Your task to perform on an android device: clear all cookies in the chrome app Image 0: 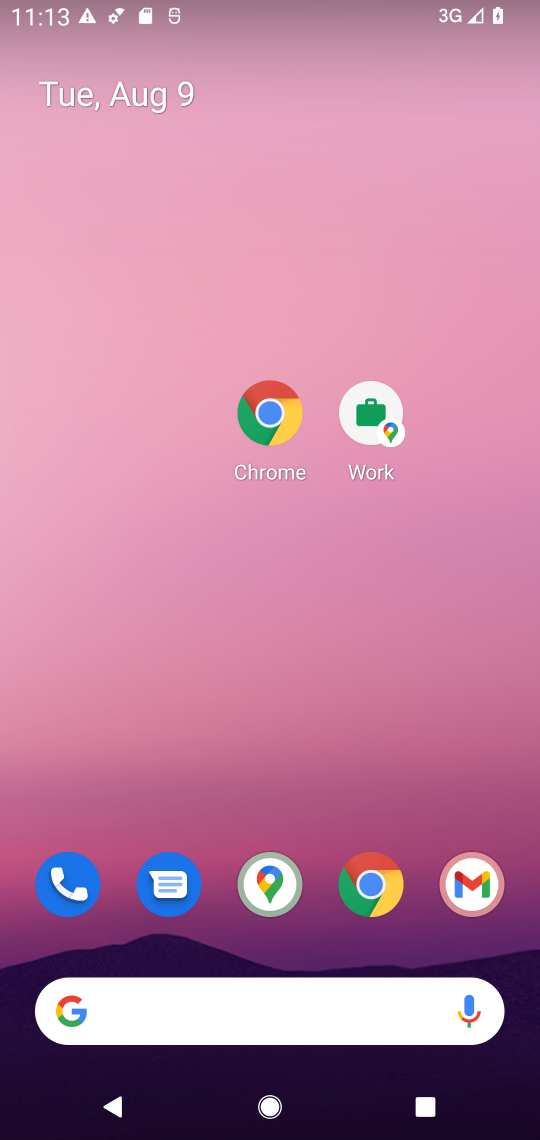
Step 0: drag from (337, 957) to (257, 256)
Your task to perform on an android device: clear all cookies in the chrome app Image 1: 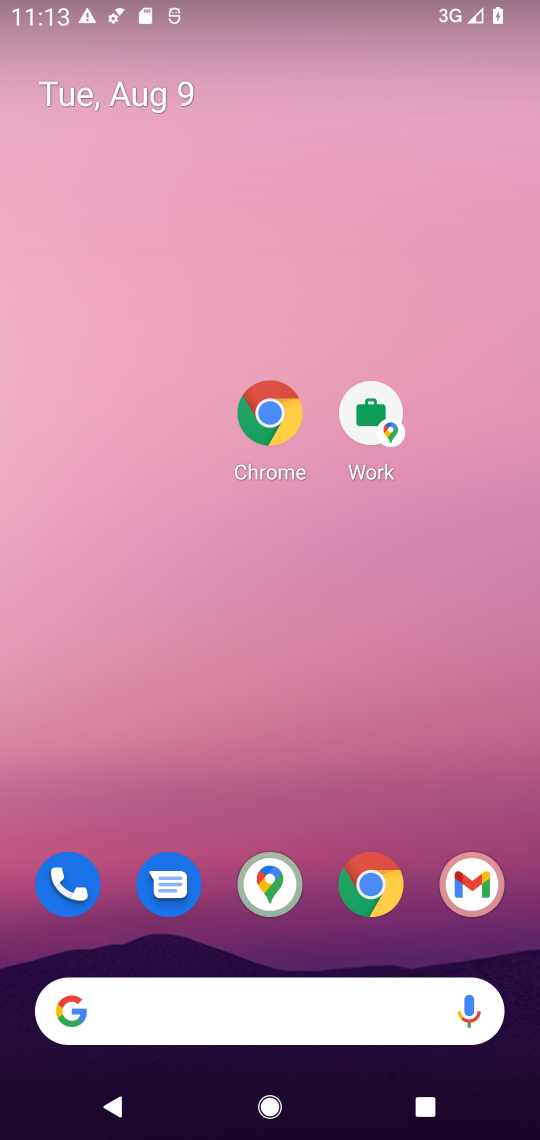
Step 1: drag from (293, 796) to (228, 346)
Your task to perform on an android device: clear all cookies in the chrome app Image 2: 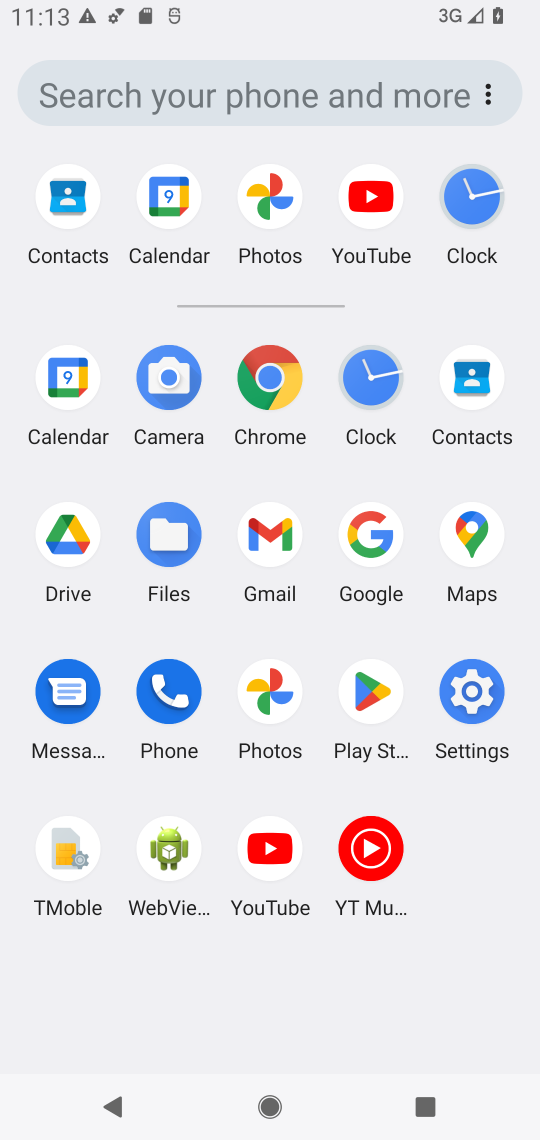
Step 2: drag from (266, 667) to (220, 161)
Your task to perform on an android device: clear all cookies in the chrome app Image 3: 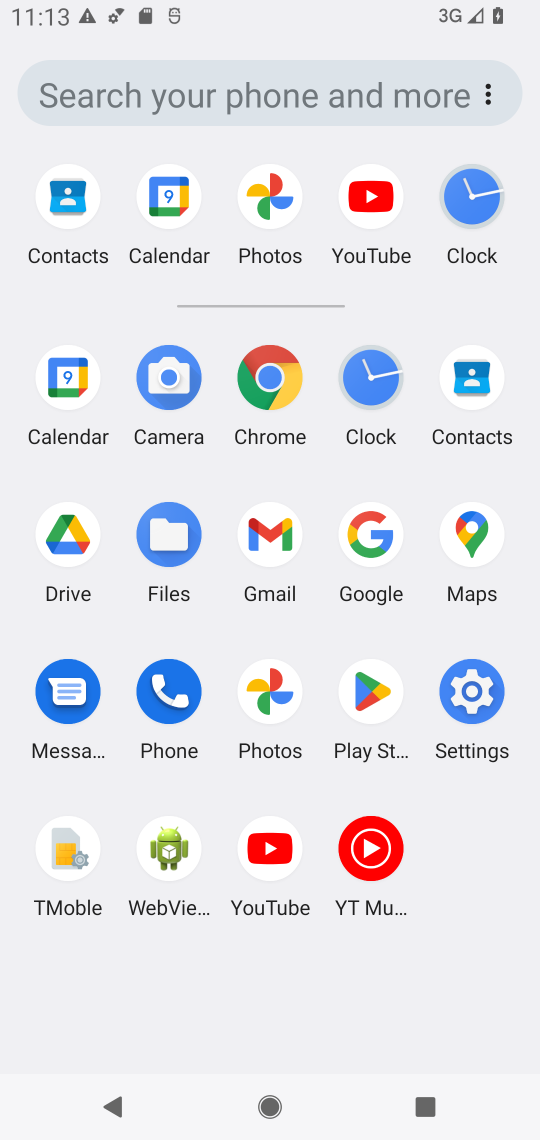
Step 3: click (263, 380)
Your task to perform on an android device: clear all cookies in the chrome app Image 4: 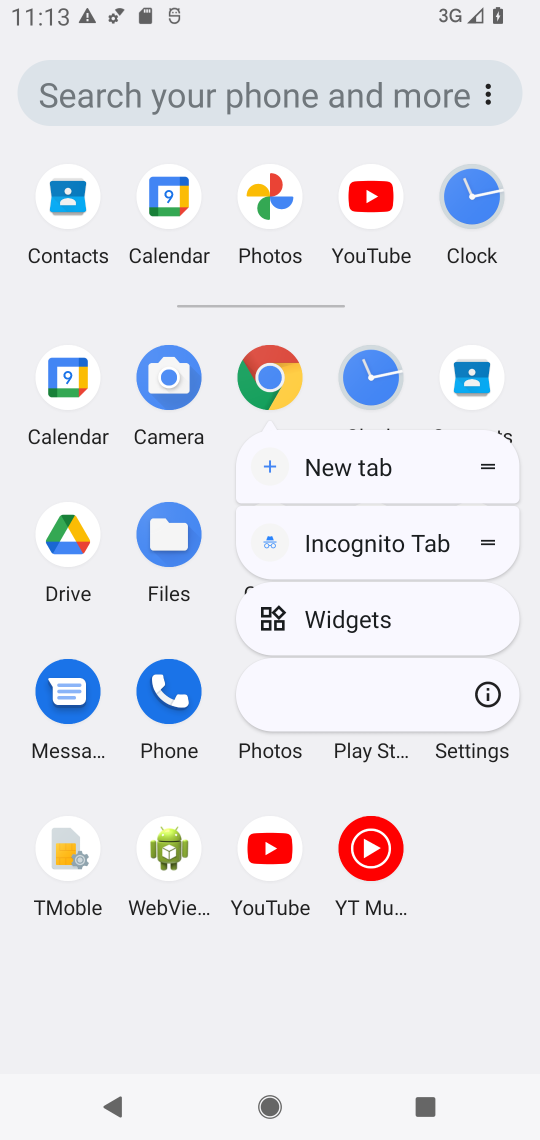
Step 4: click (266, 400)
Your task to perform on an android device: clear all cookies in the chrome app Image 5: 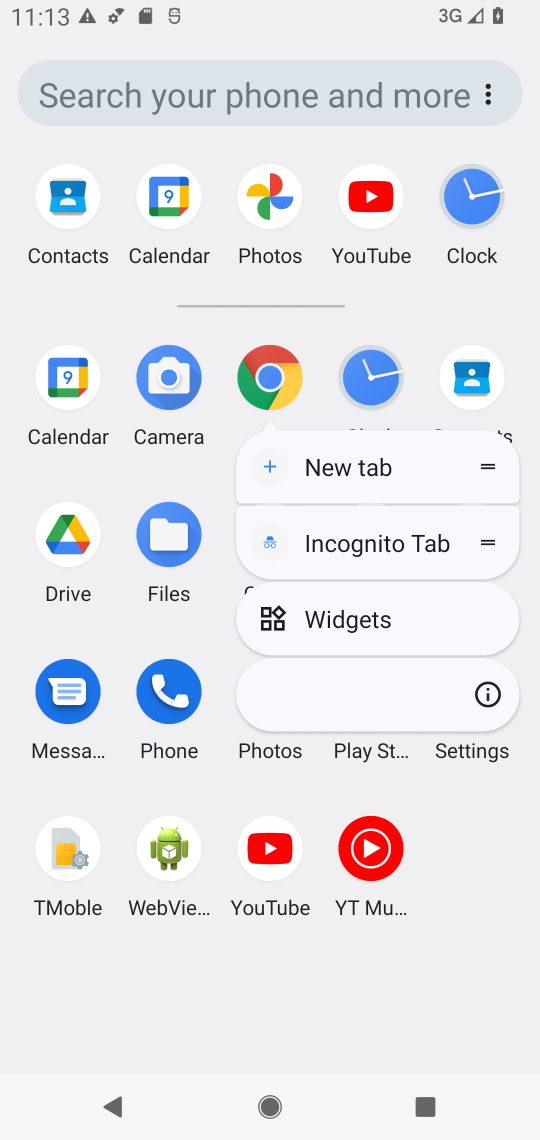
Step 5: click (252, 385)
Your task to perform on an android device: clear all cookies in the chrome app Image 6: 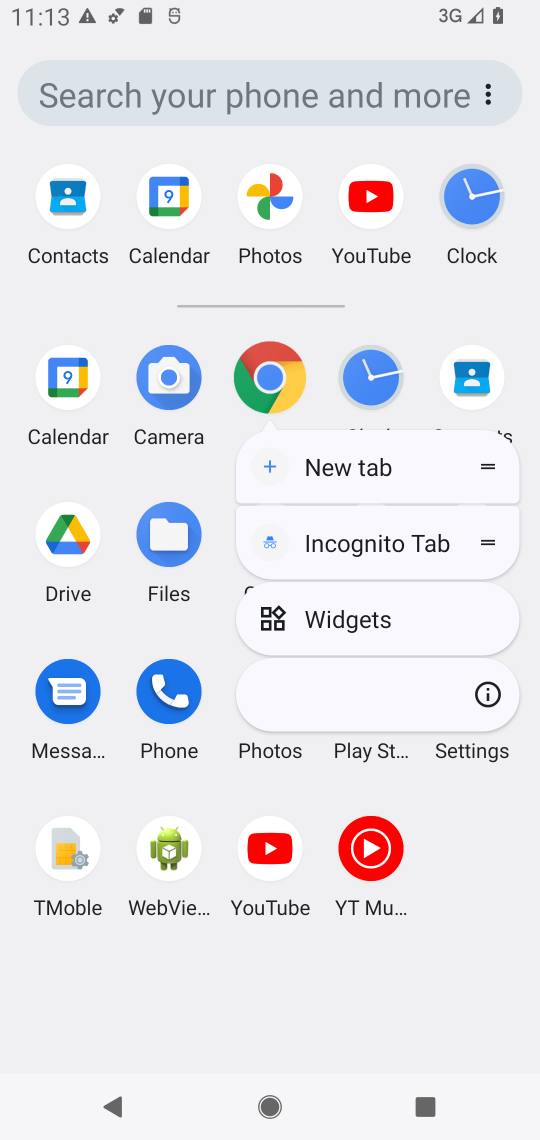
Step 6: click (252, 385)
Your task to perform on an android device: clear all cookies in the chrome app Image 7: 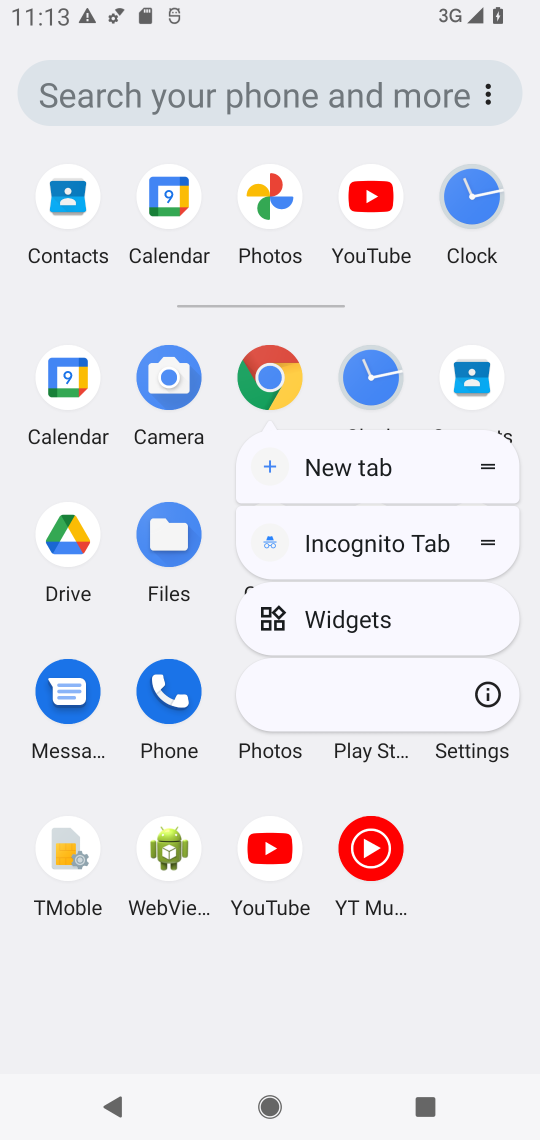
Step 7: click (269, 390)
Your task to perform on an android device: clear all cookies in the chrome app Image 8: 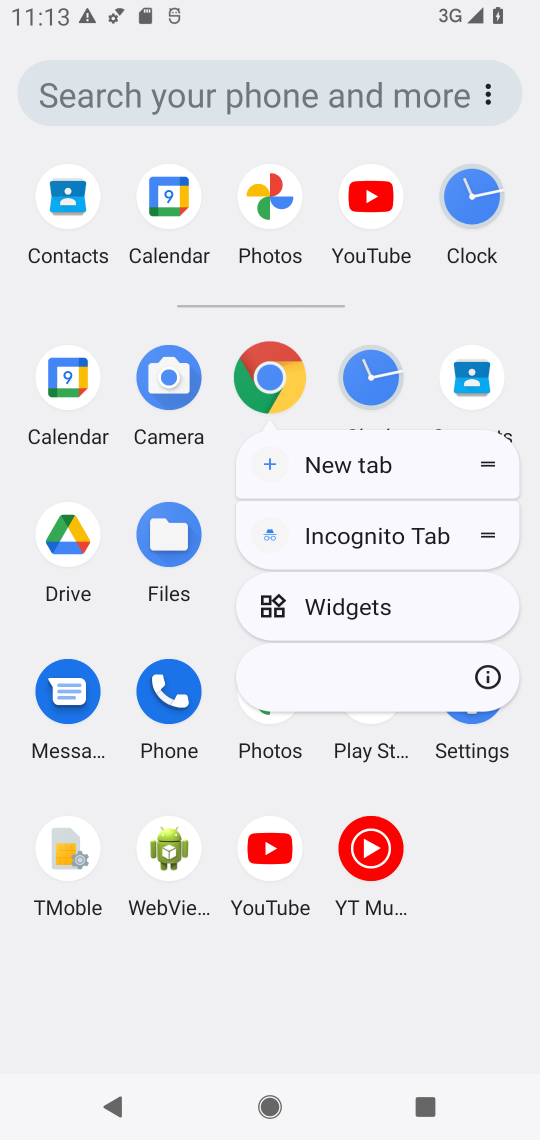
Step 8: click (269, 389)
Your task to perform on an android device: clear all cookies in the chrome app Image 9: 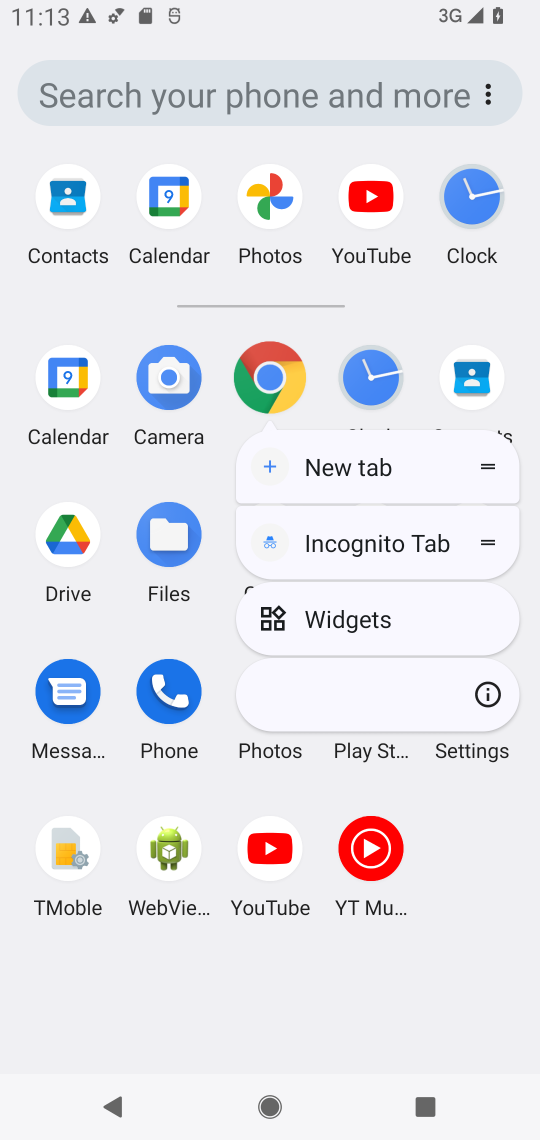
Step 9: click (274, 363)
Your task to perform on an android device: clear all cookies in the chrome app Image 10: 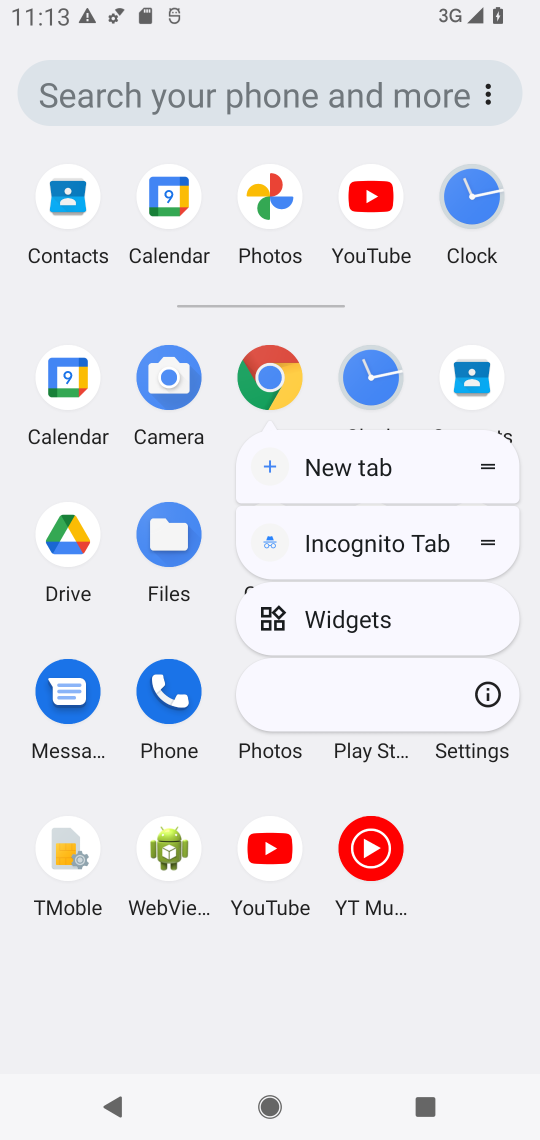
Step 10: click (279, 365)
Your task to perform on an android device: clear all cookies in the chrome app Image 11: 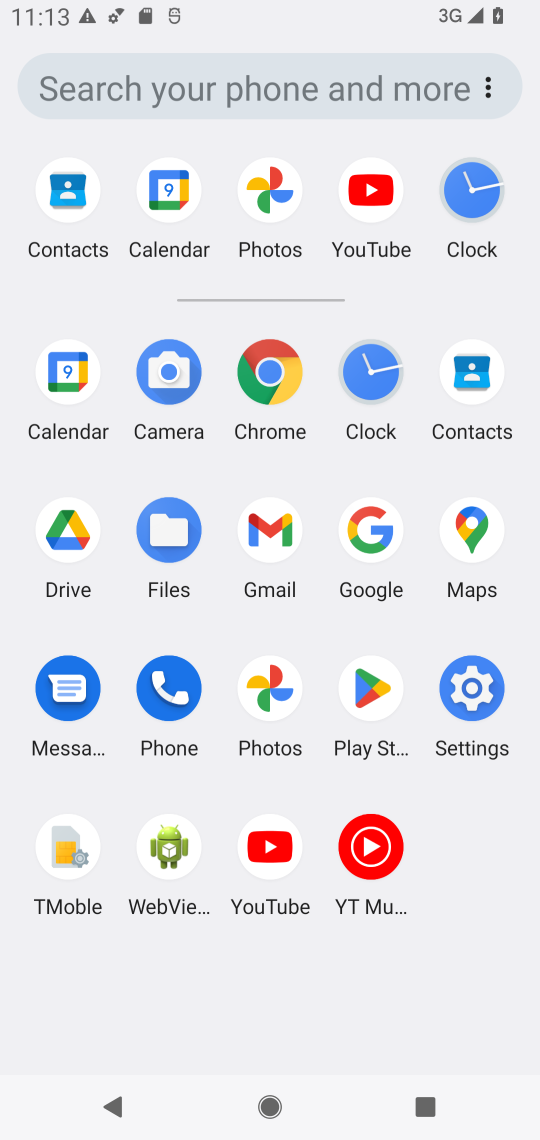
Step 11: click (286, 333)
Your task to perform on an android device: clear all cookies in the chrome app Image 12: 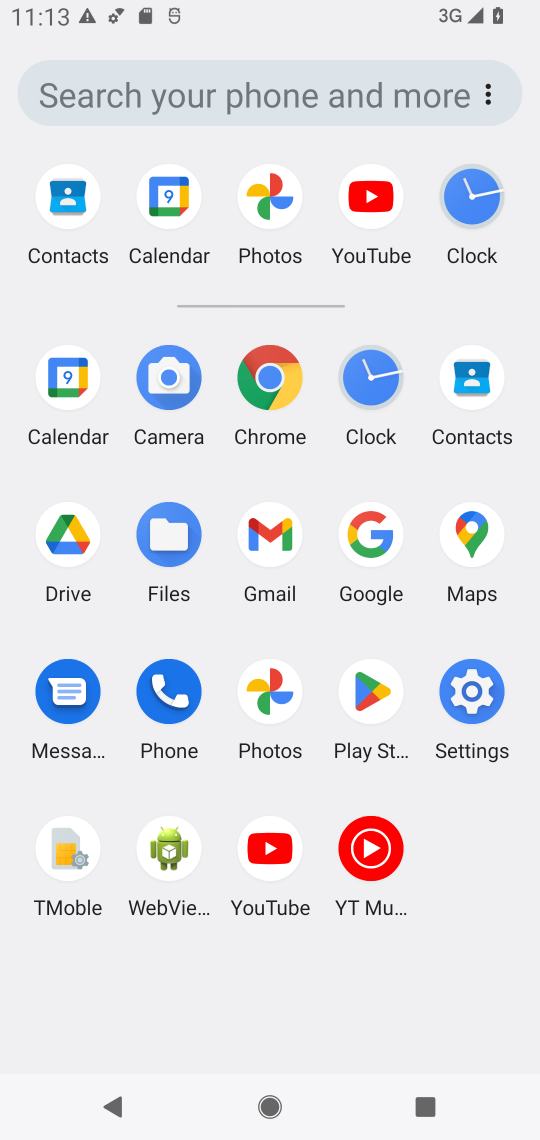
Step 12: click (269, 357)
Your task to perform on an android device: clear all cookies in the chrome app Image 13: 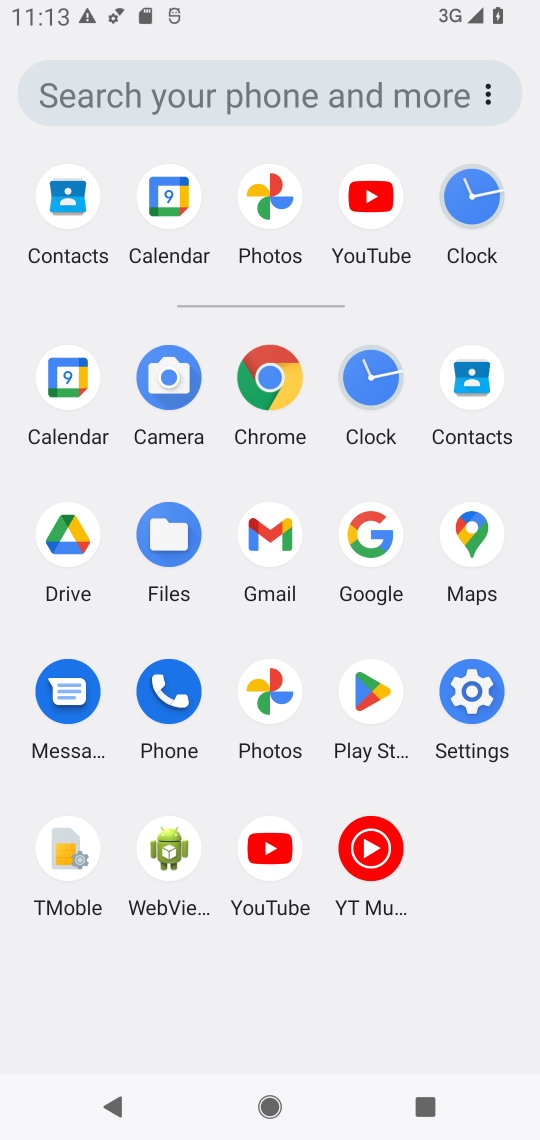
Step 13: click (271, 367)
Your task to perform on an android device: clear all cookies in the chrome app Image 14: 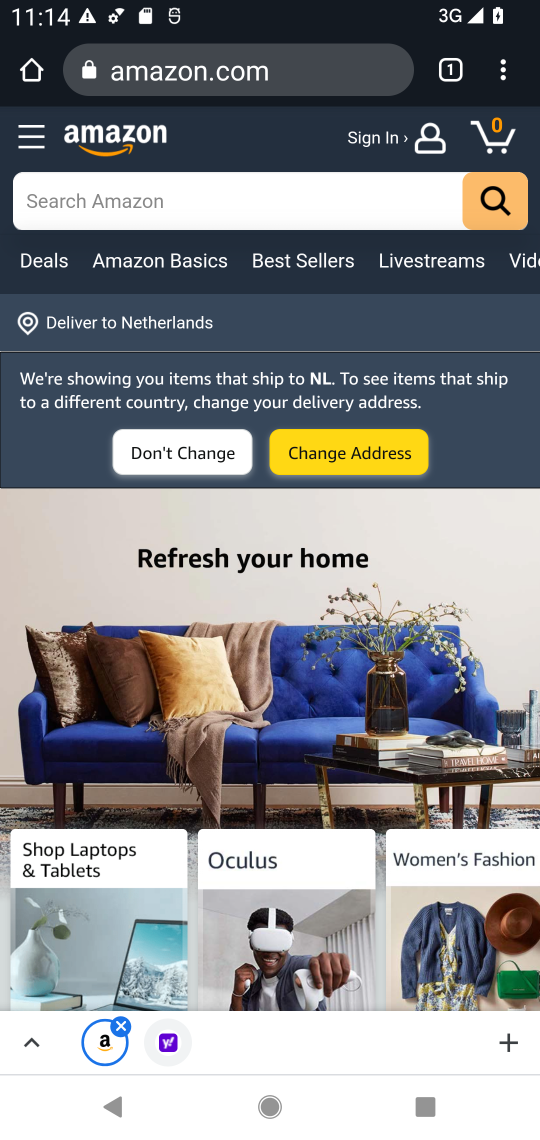
Step 14: drag from (495, 73) to (332, 132)
Your task to perform on an android device: clear all cookies in the chrome app Image 15: 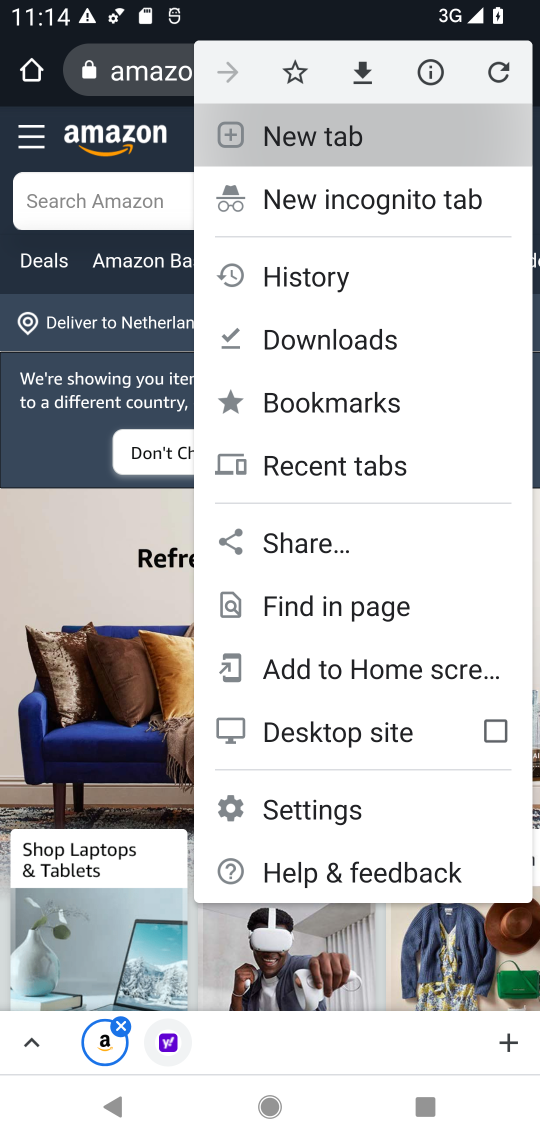
Step 15: click (332, 132)
Your task to perform on an android device: clear all cookies in the chrome app Image 16: 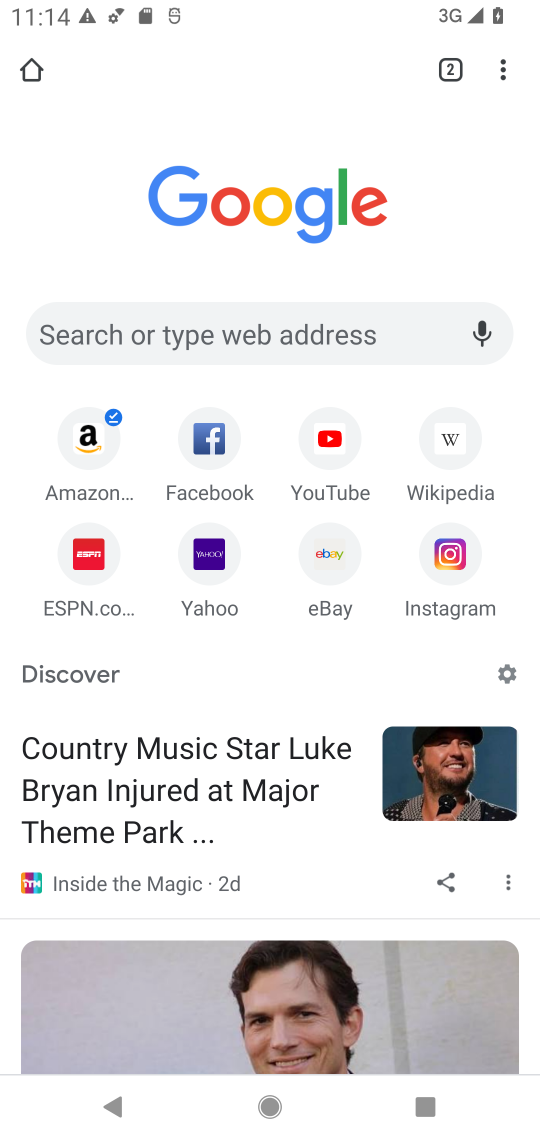
Step 16: drag from (503, 66) to (314, 617)
Your task to perform on an android device: clear all cookies in the chrome app Image 17: 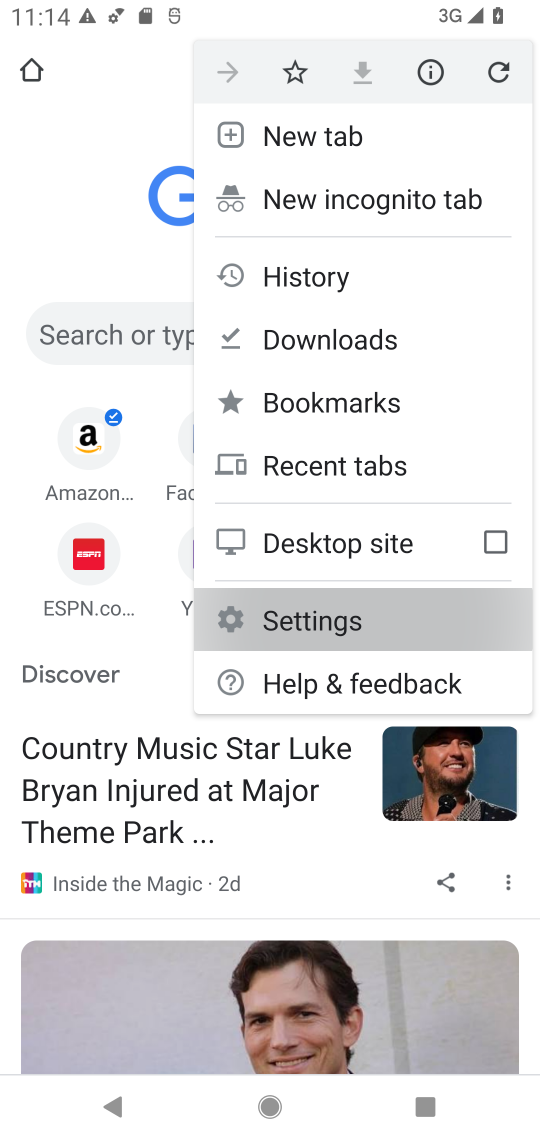
Step 17: click (312, 616)
Your task to perform on an android device: clear all cookies in the chrome app Image 18: 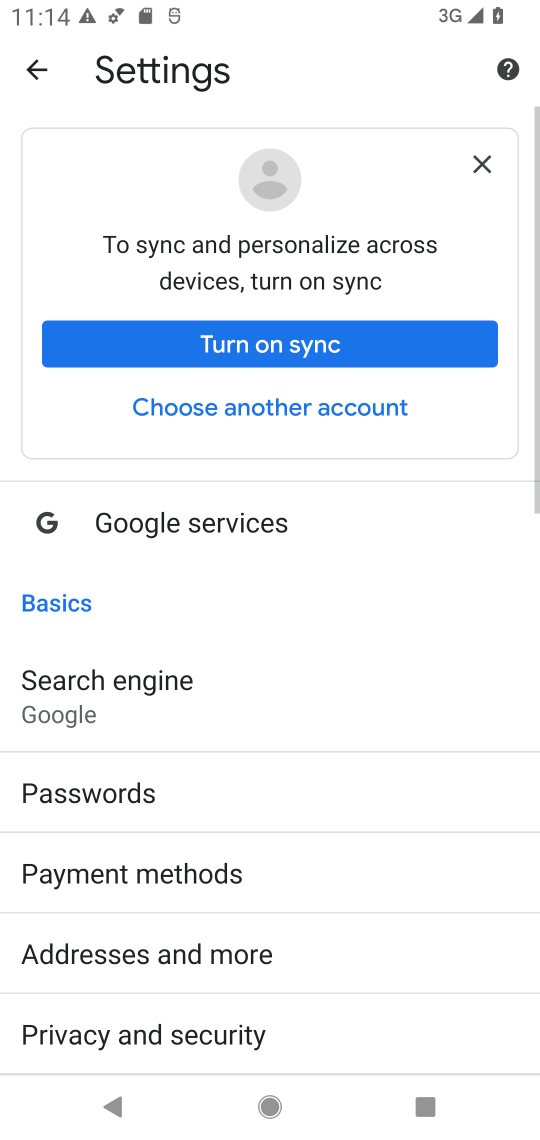
Step 18: drag from (147, 830) to (179, 338)
Your task to perform on an android device: clear all cookies in the chrome app Image 19: 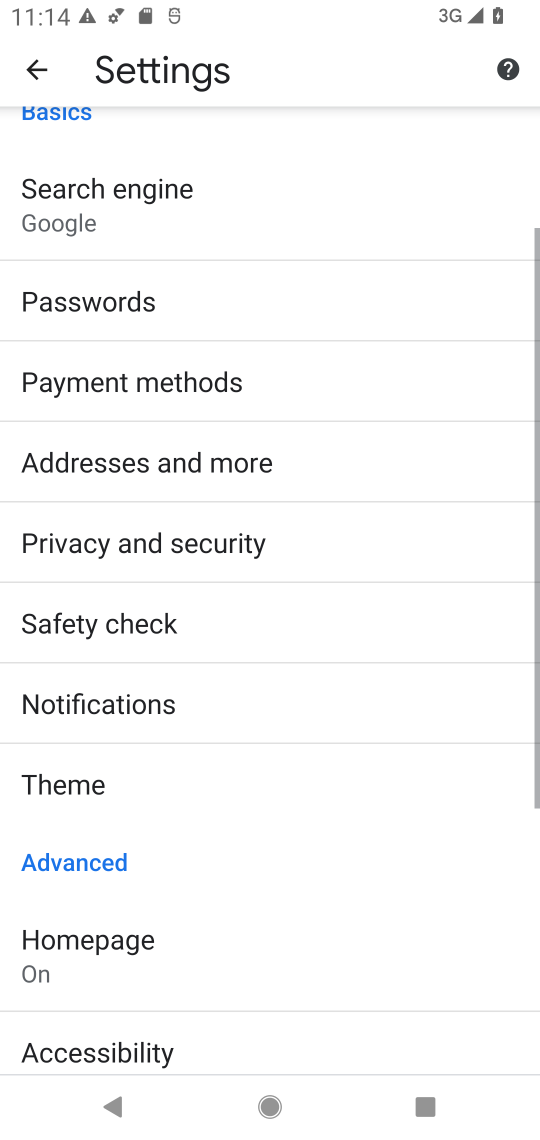
Step 19: click (194, 352)
Your task to perform on an android device: clear all cookies in the chrome app Image 20: 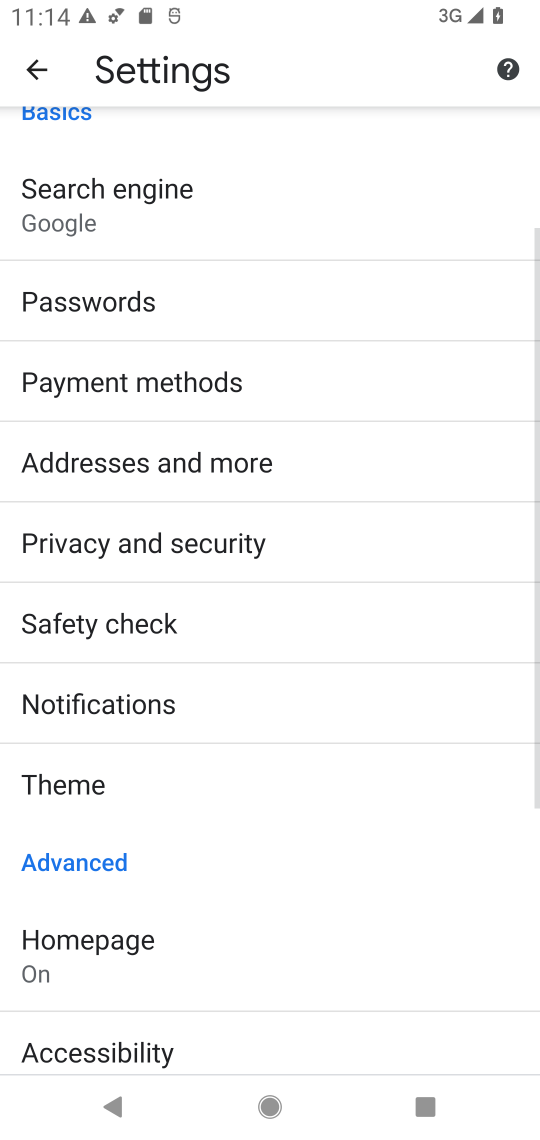
Step 20: drag from (241, 617) to (241, 490)
Your task to perform on an android device: clear all cookies in the chrome app Image 21: 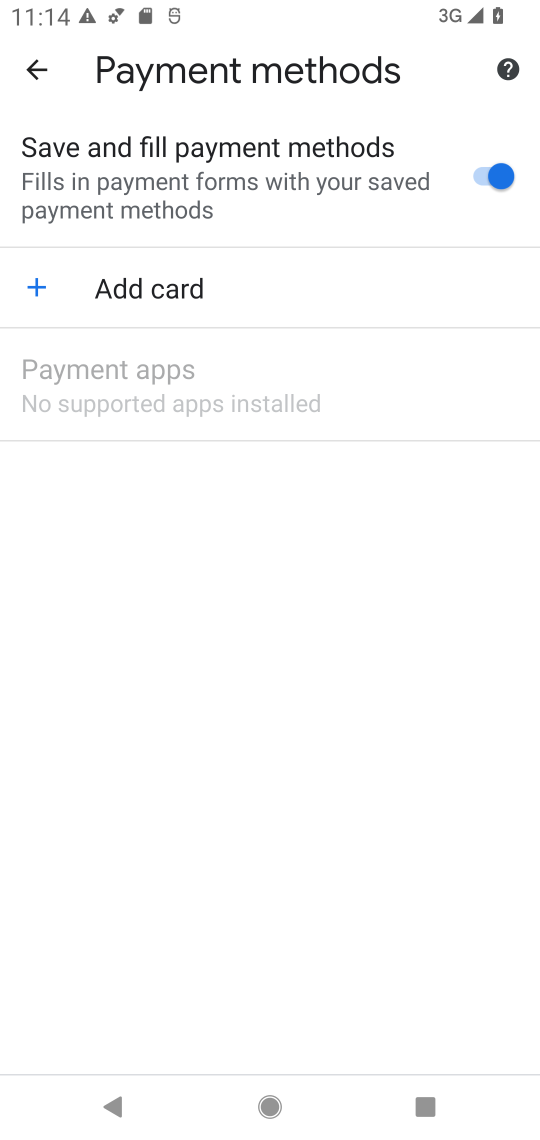
Step 21: click (29, 42)
Your task to perform on an android device: clear all cookies in the chrome app Image 22: 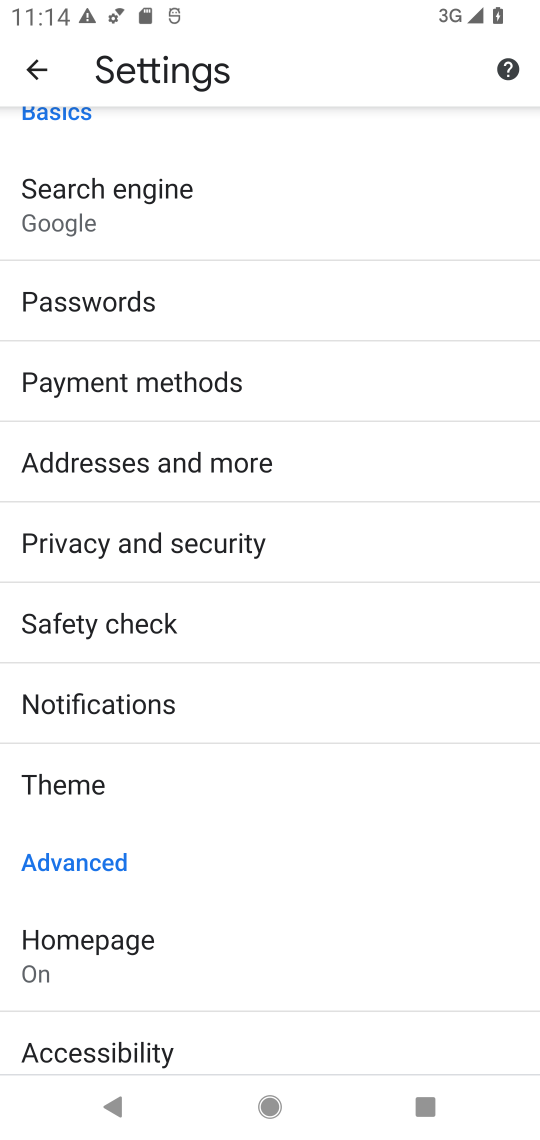
Step 22: drag from (137, 481) to (148, 921)
Your task to perform on an android device: clear all cookies in the chrome app Image 23: 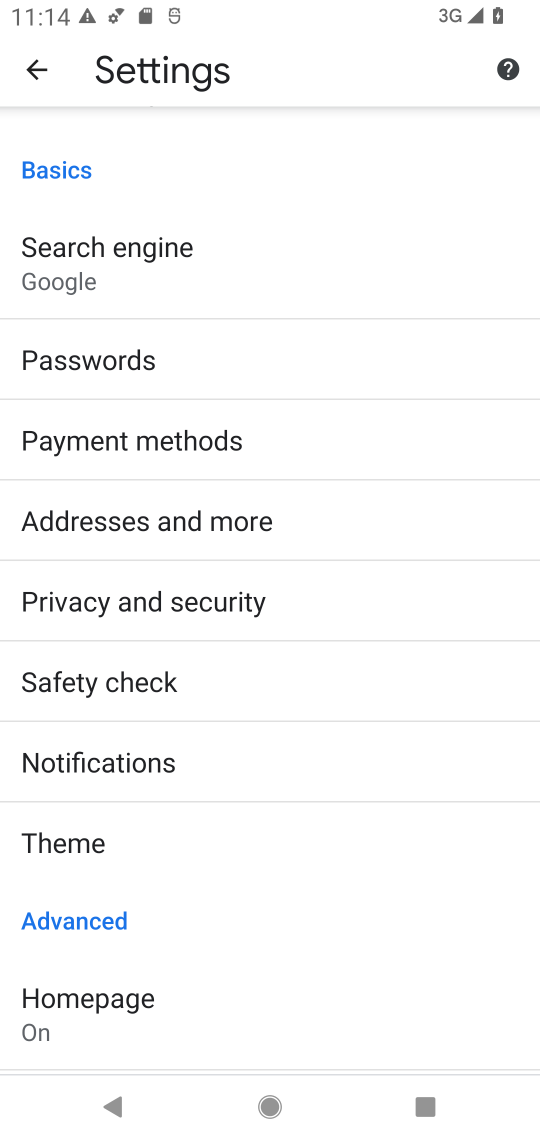
Step 23: drag from (136, 337) to (118, 842)
Your task to perform on an android device: clear all cookies in the chrome app Image 24: 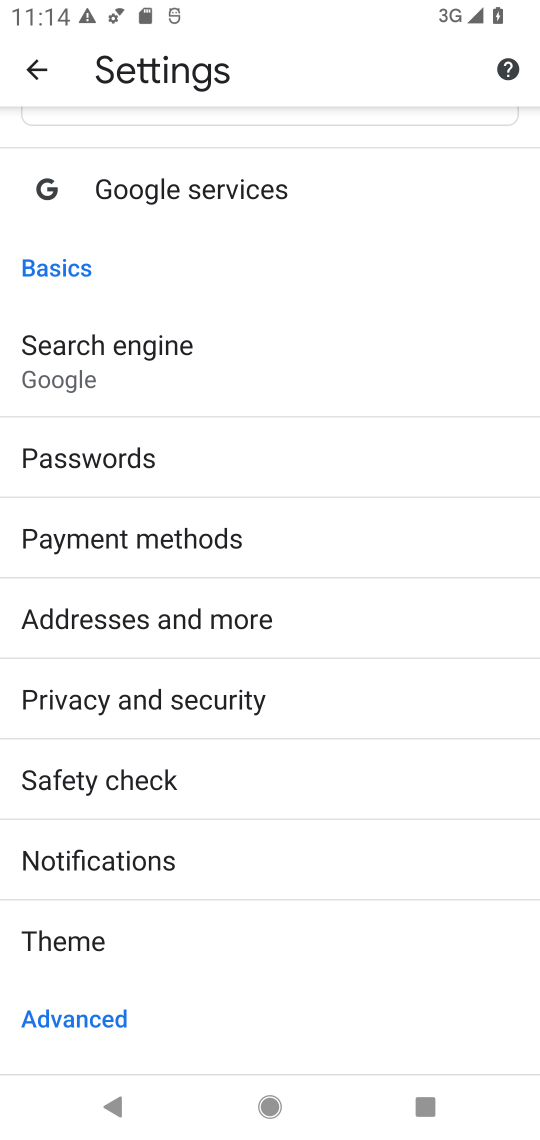
Step 24: drag from (165, 997) to (104, 379)
Your task to perform on an android device: clear all cookies in the chrome app Image 25: 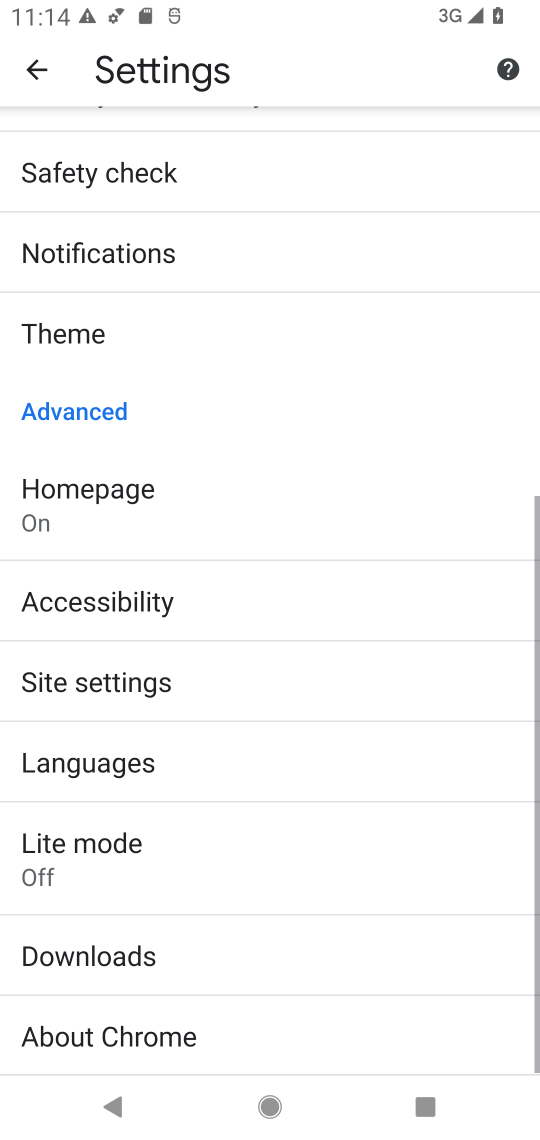
Step 25: drag from (149, 643) to (145, 253)
Your task to perform on an android device: clear all cookies in the chrome app Image 26: 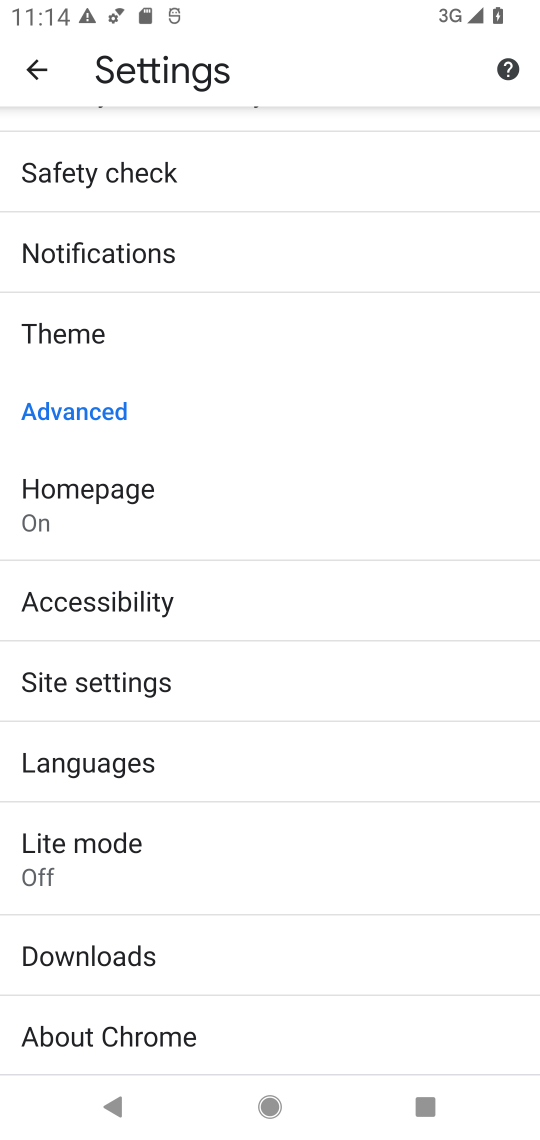
Step 26: click (67, 694)
Your task to perform on an android device: clear all cookies in the chrome app Image 27: 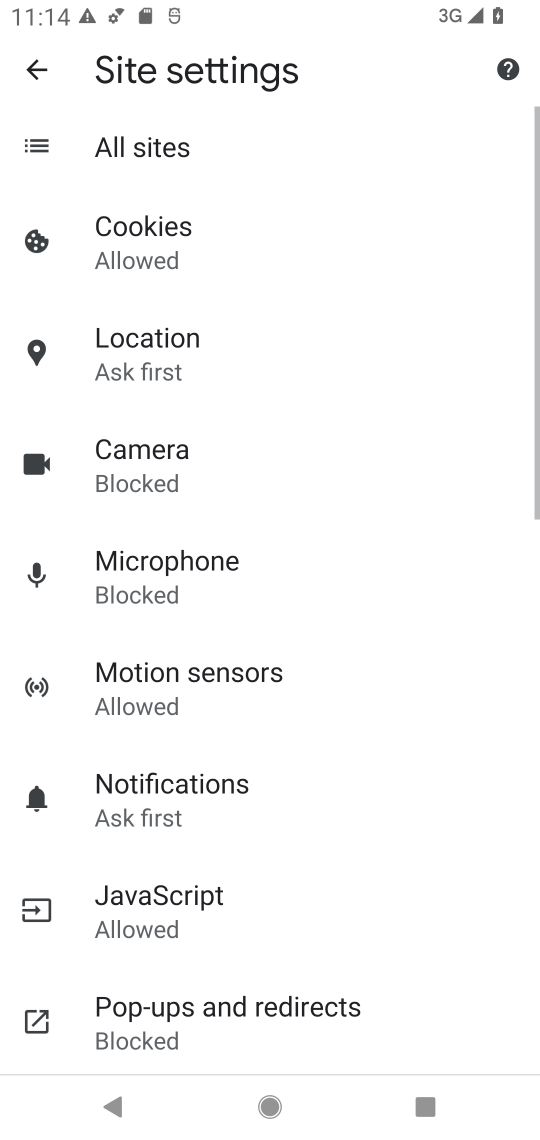
Step 27: click (127, 240)
Your task to perform on an android device: clear all cookies in the chrome app Image 28: 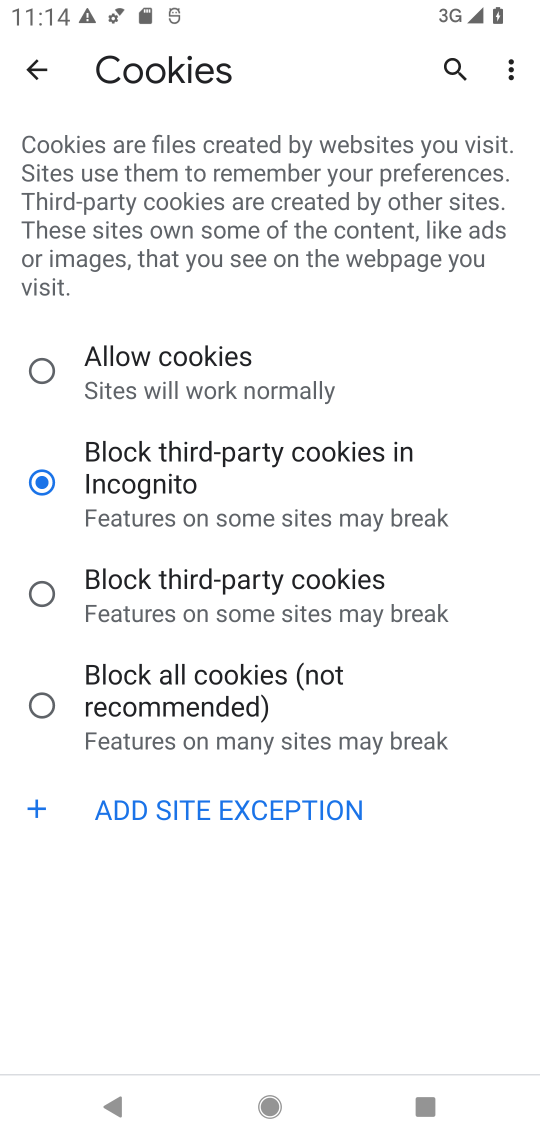
Step 28: click (47, 710)
Your task to perform on an android device: clear all cookies in the chrome app Image 29: 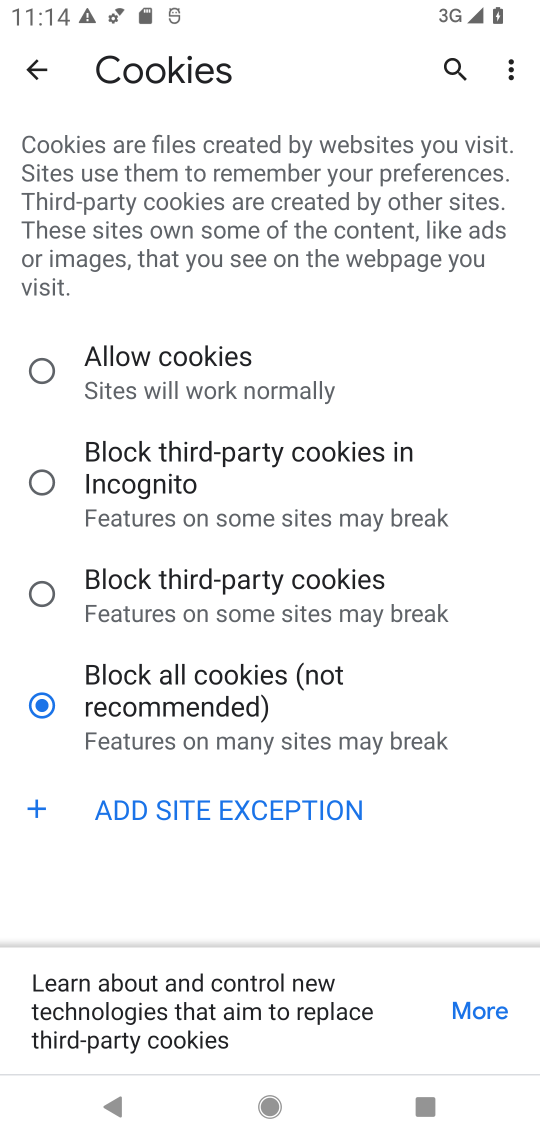
Step 29: task complete